Your task to perform on an android device: add a contact Image 0: 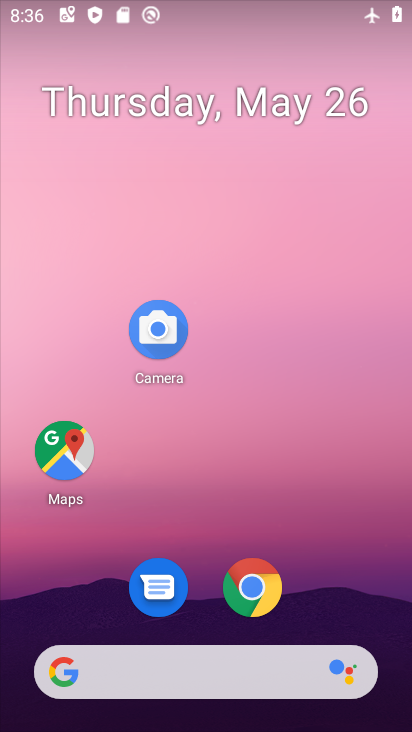
Step 0: drag from (202, 614) to (267, 207)
Your task to perform on an android device: add a contact Image 1: 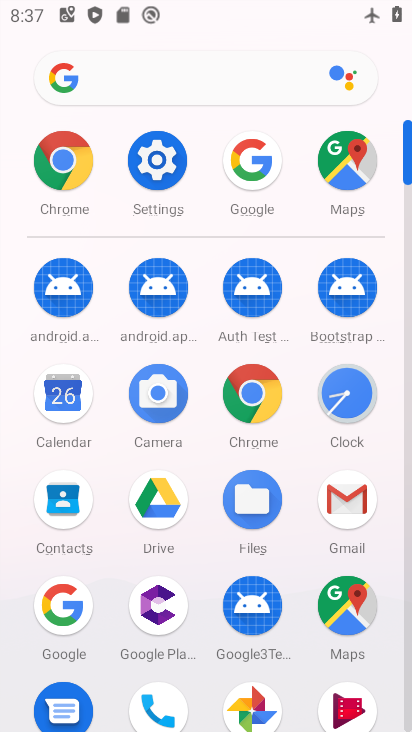
Step 1: click (69, 510)
Your task to perform on an android device: add a contact Image 2: 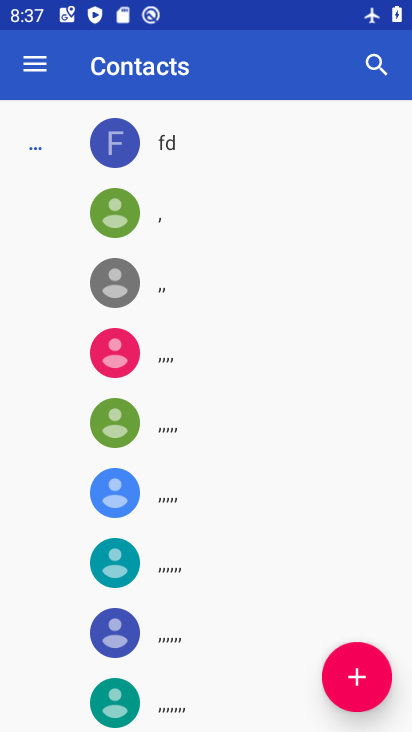
Step 2: click (341, 671)
Your task to perform on an android device: add a contact Image 3: 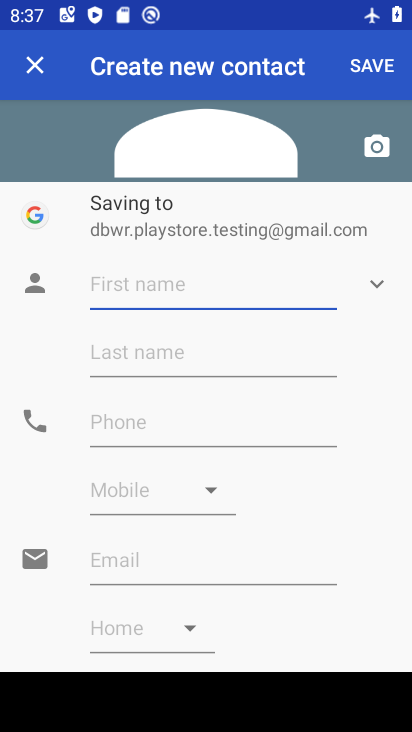
Step 3: type "bkjhv"
Your task to perform on an android device: add a contact Image 4: 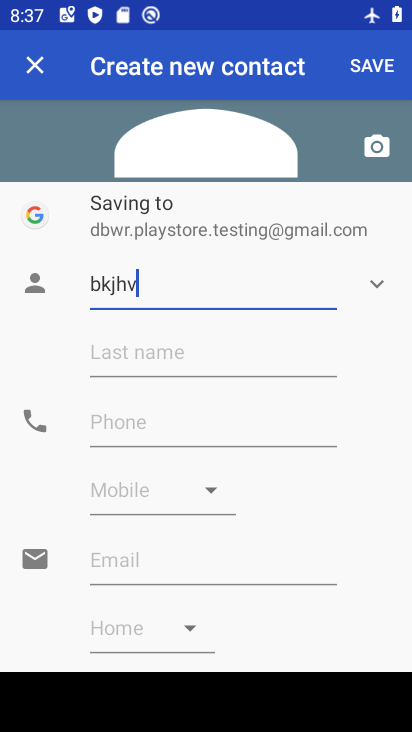
Step 4: click (157, 434)
Your task to perform on an android device: add a contact Image 5: 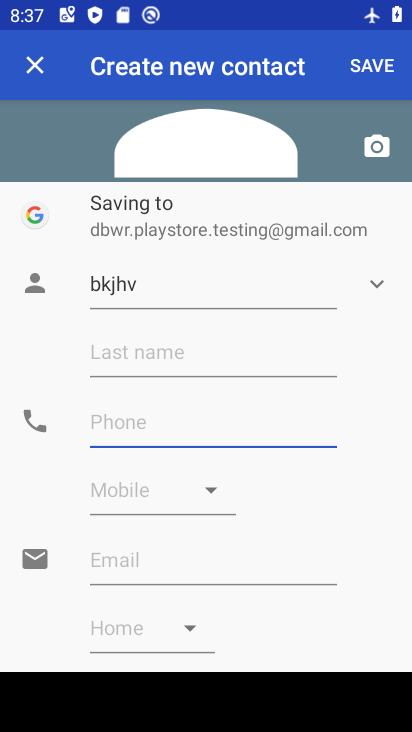
Step 5: type "987678557"
Your task to perform on an android device: add a contact Image 6: 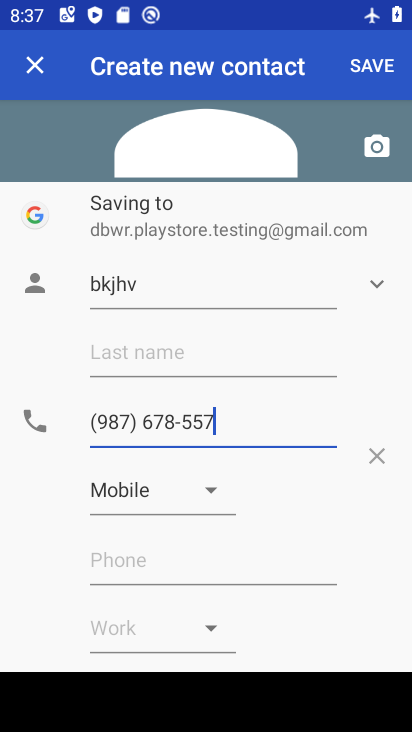
Step 6: click (383, 69)
Your task to perform on an android device: add a contact Image 7: 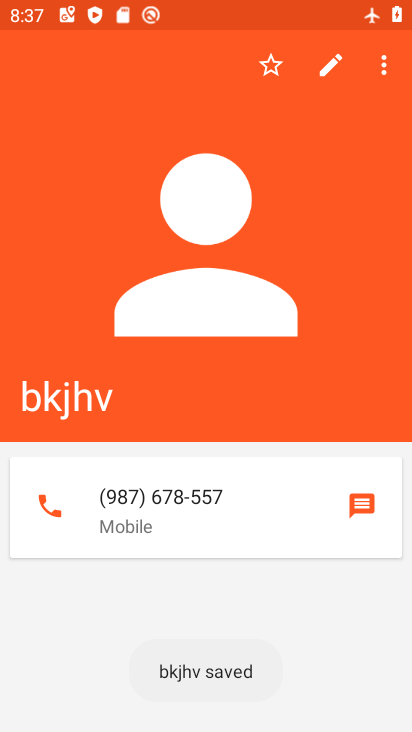
Step 7: task complete